Your task to perform on an android device: open chrome and create a bookmark for the current page Image 0: 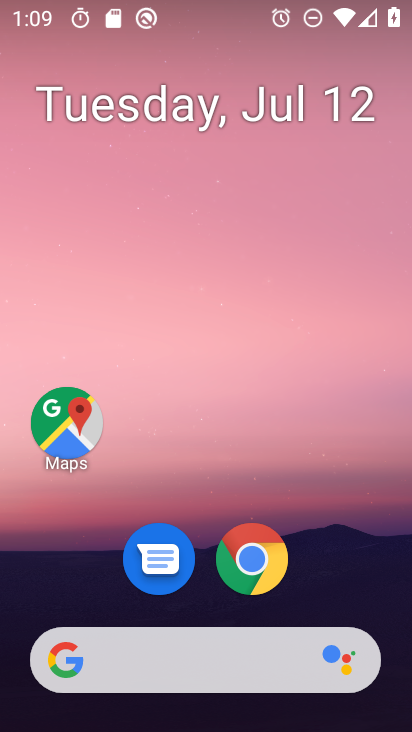
Step 0: click (253, 552)
Your task to perform on an android device: open chrome and create a bookmark for the current page Image 1: 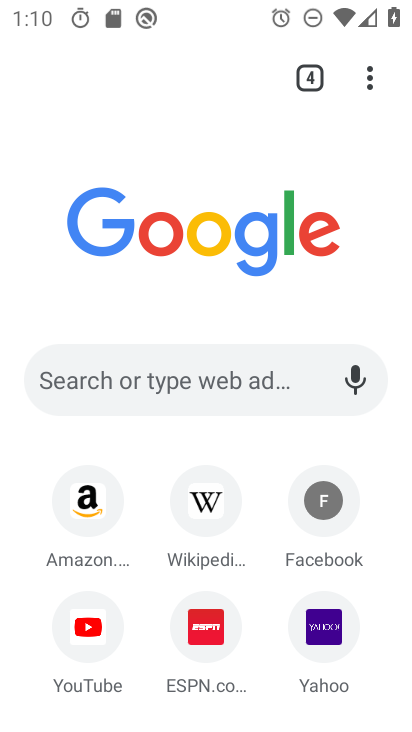
Step 1: task complete